Your task to perform on an android device: find photos in the google photos app Image 0: 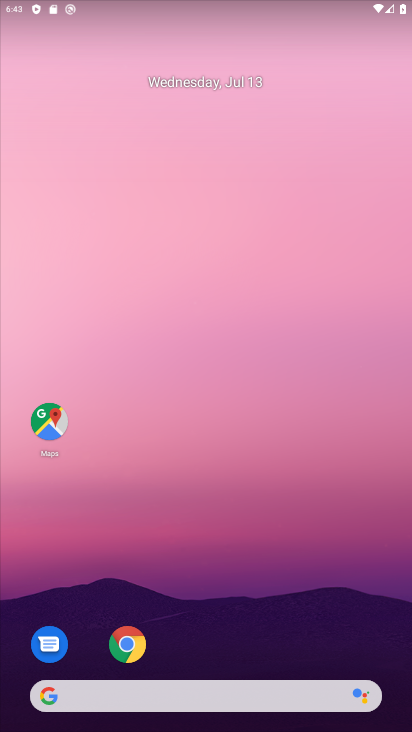
Step 0: drag from (272, 575) to (190, 100)
Your task to perform on an android device: find photos in the google photos app Image 1: 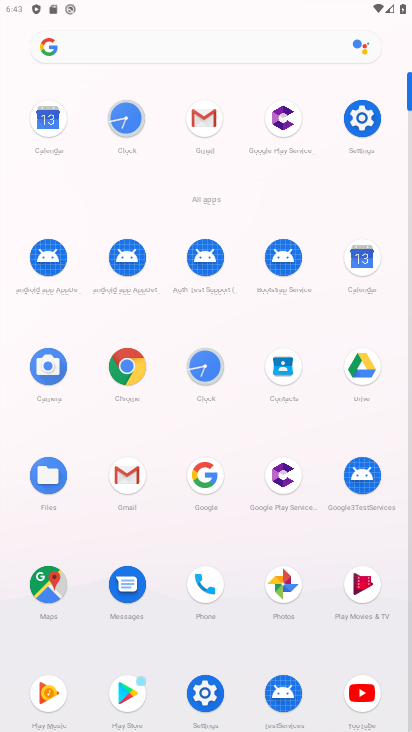
Step 1: click (287, 583)
Your task to perform on an android device: find photos in the google photos app Image 2: 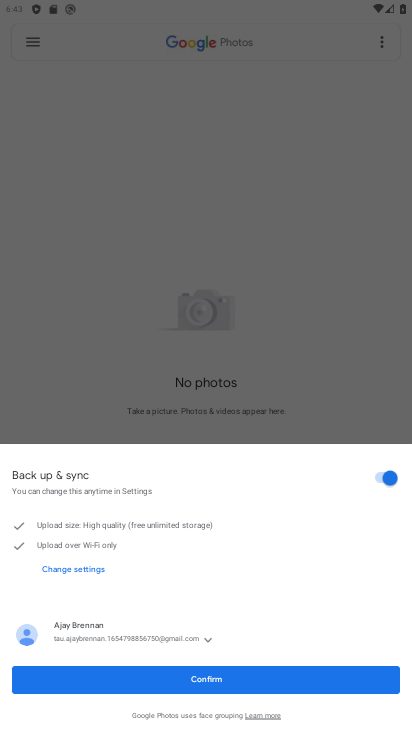
Step 2: click (229, 687)
Your task to perform on an android device: find photos in the google photos app Image 3: 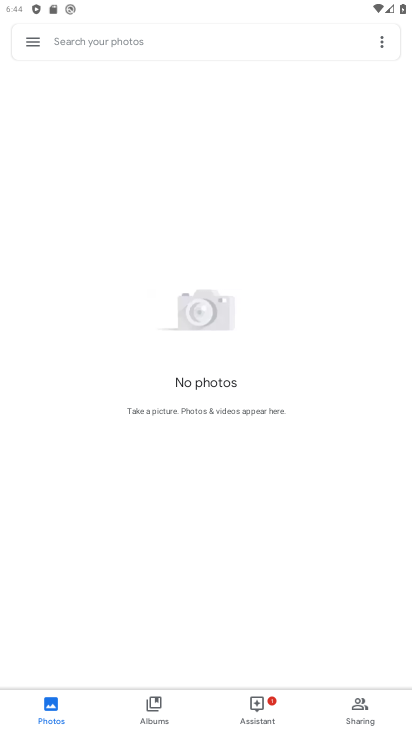
Step 3: task complete